Your task to perform on an android device: Go to accessibility settings Image 0: 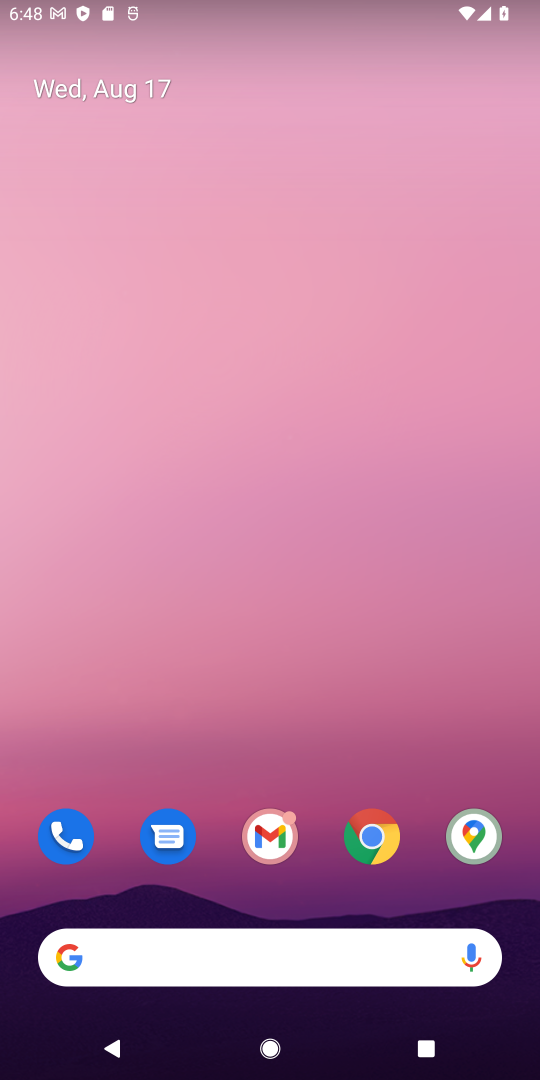
Step 0: drag from (290, 845) to (300, 85)
Your task to perform on an android device: Go to accessibility settings Image 1: 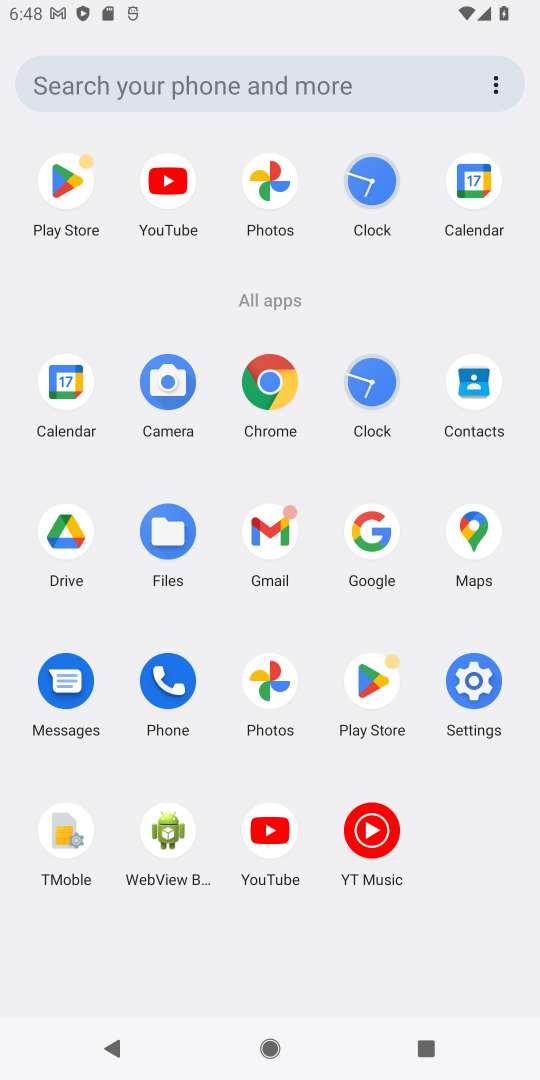
Step 1: click (476, 688)
Your task to perform on an android device: Go to accessibility settings Image 2: 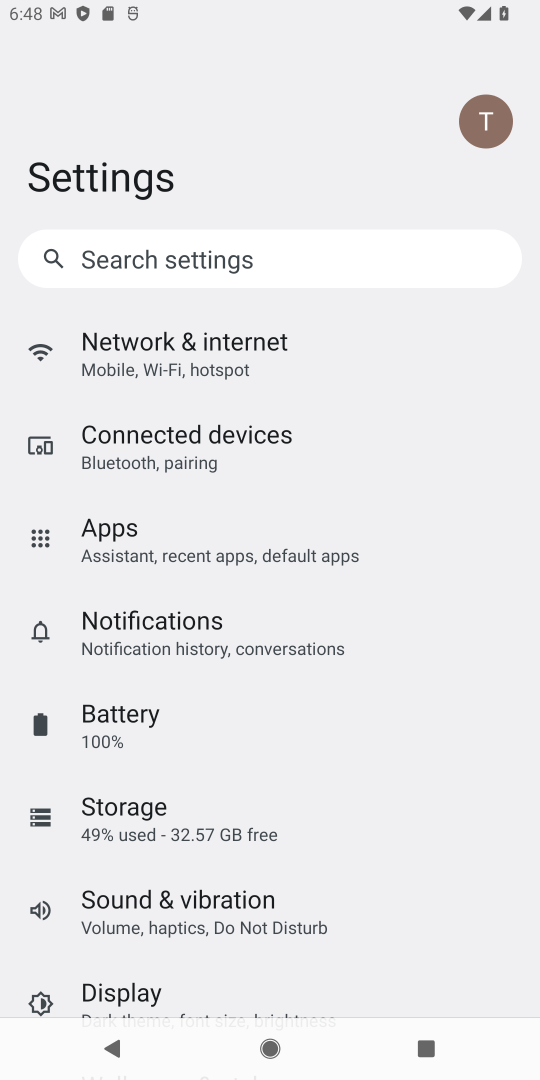
Step 2: drag from (168, 919) to (183, 404)
Your task to perform on an android device: Go to accessibility settings Image 3: 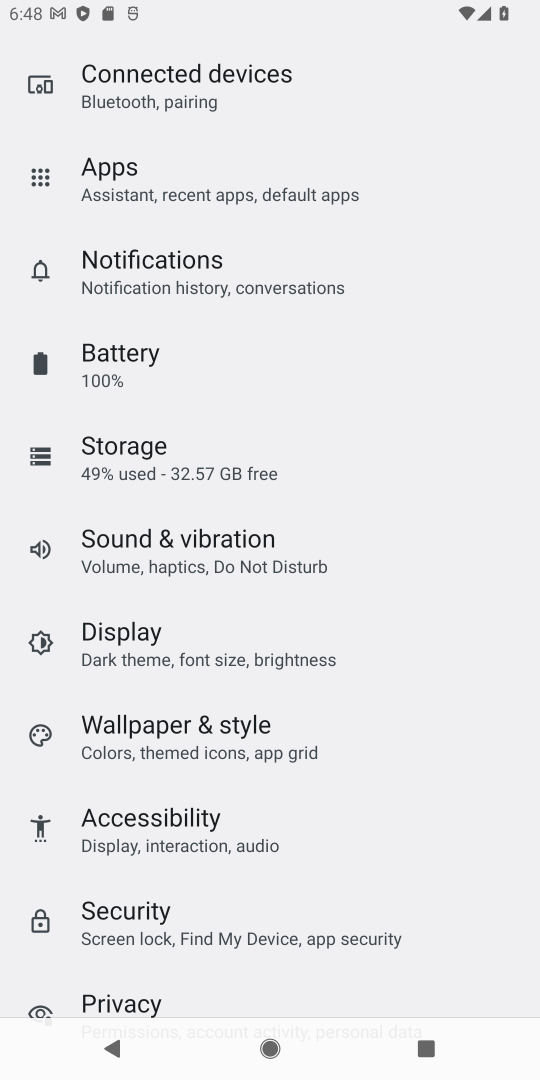
Step 3: click (216, 816)
Your task to perform on an android device: Go to accessibility settings Image 4: 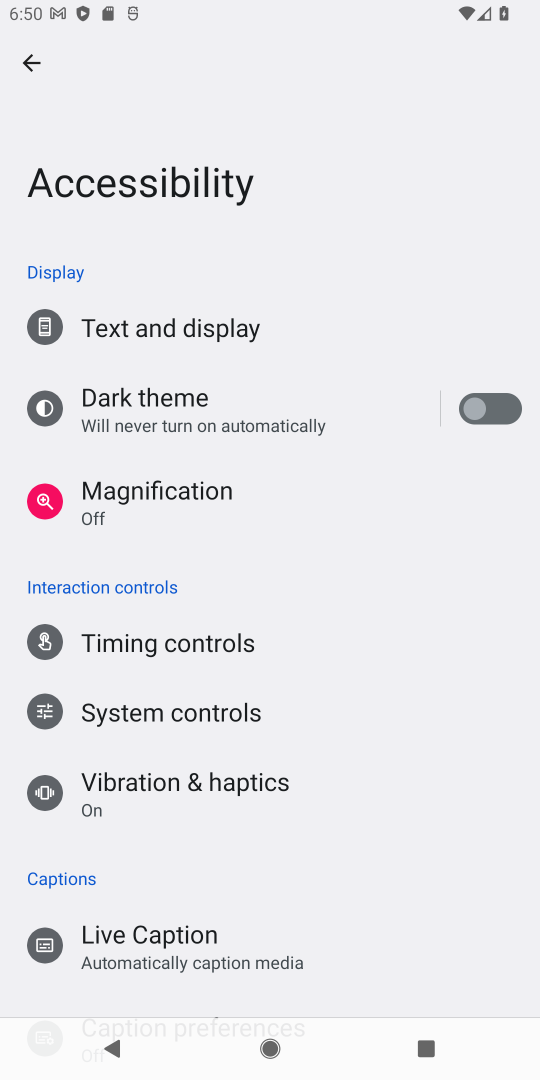
Step 4: task complete